Your task to perform on an android device: check data usage Image 0: 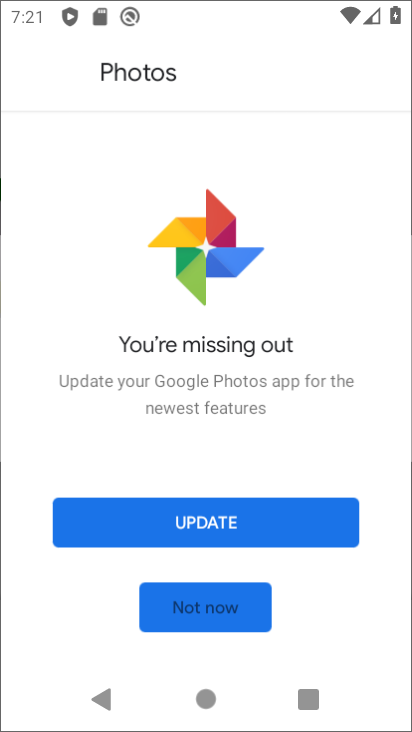
Step 0: press home button
Your task to perform on an android device: check data usage Image 1: 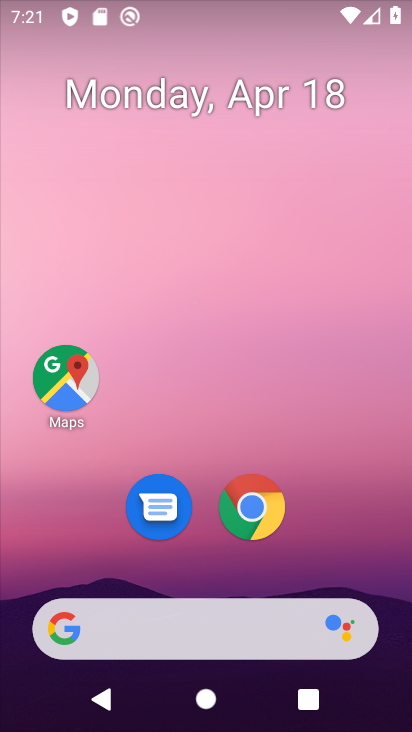
Step 1: drag from (3, 511) to (210, 55)
Your task to perform on an android device: check data usage Image 2: 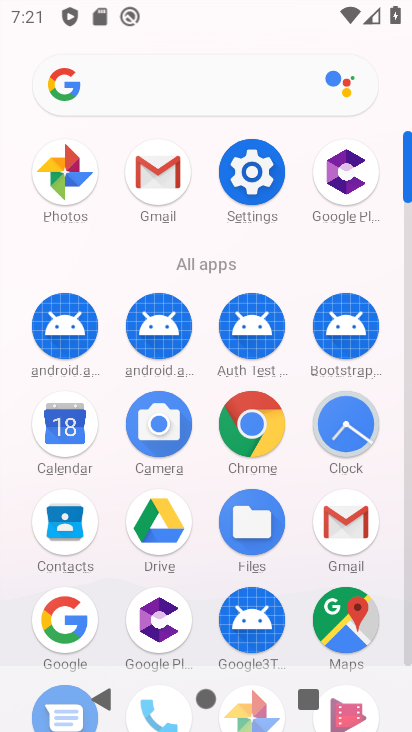
Step 2: click (242, 172)
Your task to perform on an android device: check data usage Image 3: 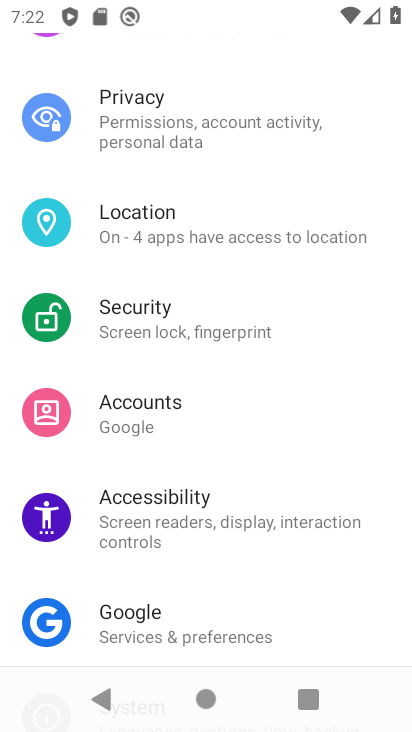
Step 3: drag from (225, 163) to (222, 574)
Your task to perform on an android device: check data usage Image 4: 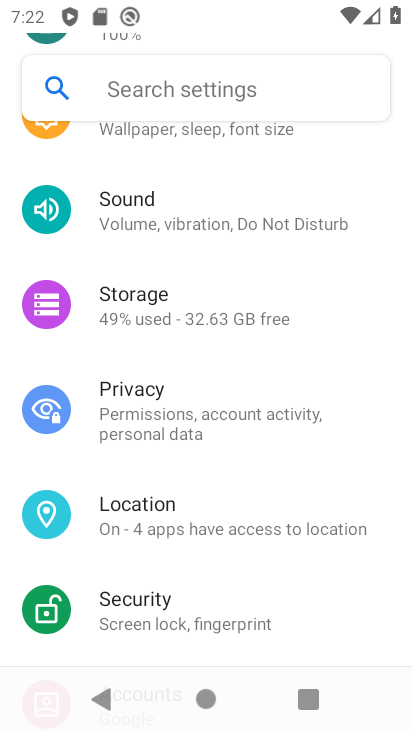
Step 4: drag from (194, 215) to (217, 576)
Your task to perform on an android device: check data usage Image 5: 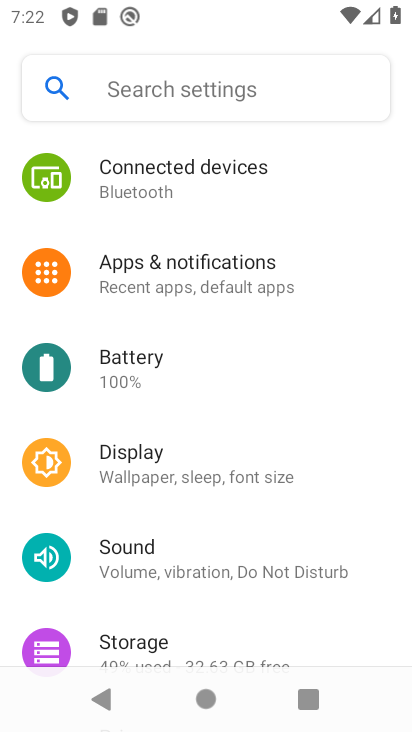
Step 5: drag from (260, 176) to (284, 529)
Your task to perform on an android device: check data usage Image 6: 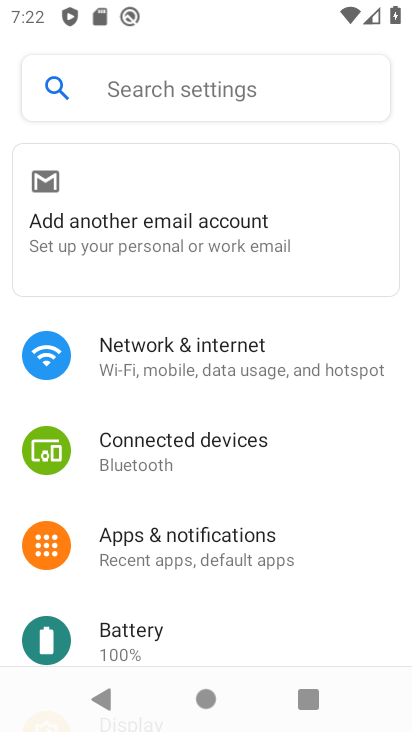
Step 6: click (225, 379)
Your task to perform on an android device: check data usage Image 7: 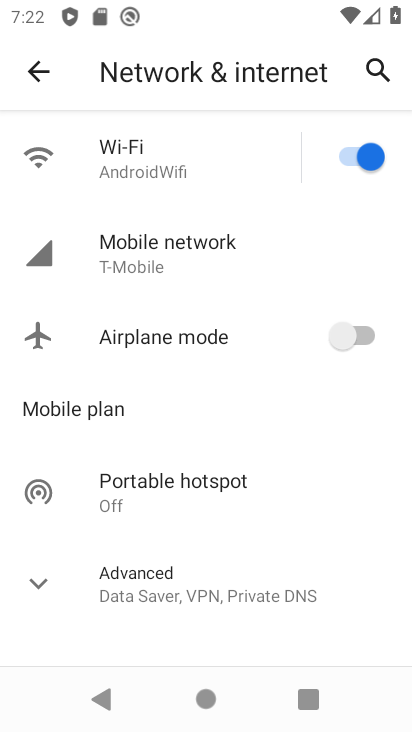
Step 7: click (233, 265)
Your task to perform on an android device: check data usage Image 8: 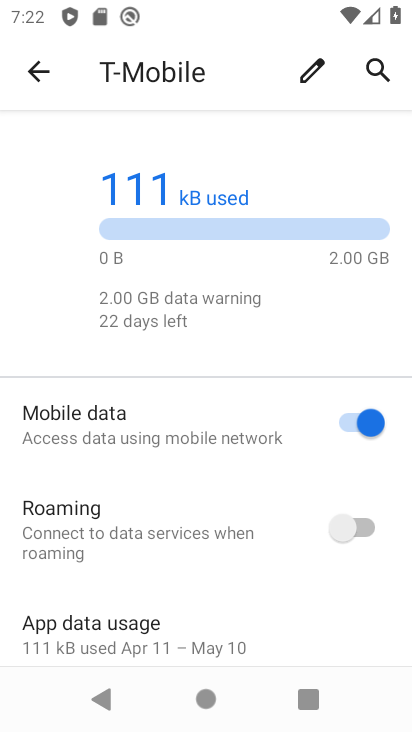
Step 8: click (184, 645)
Your task to perform on an android device: check data usage Image 9: 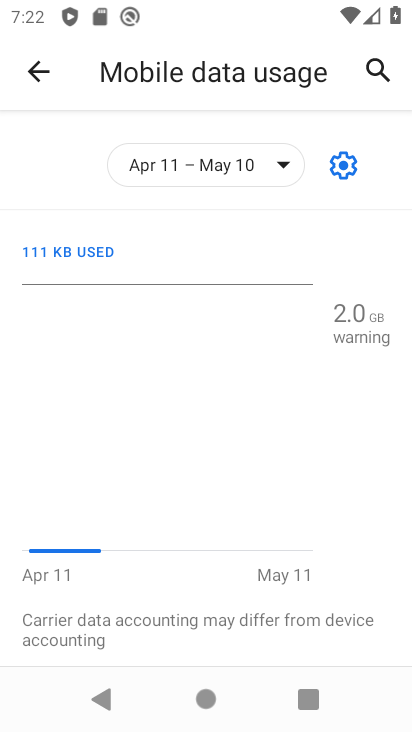
Step 9: task complete